Your task to perform on an android device: Open internet settings Image 0: 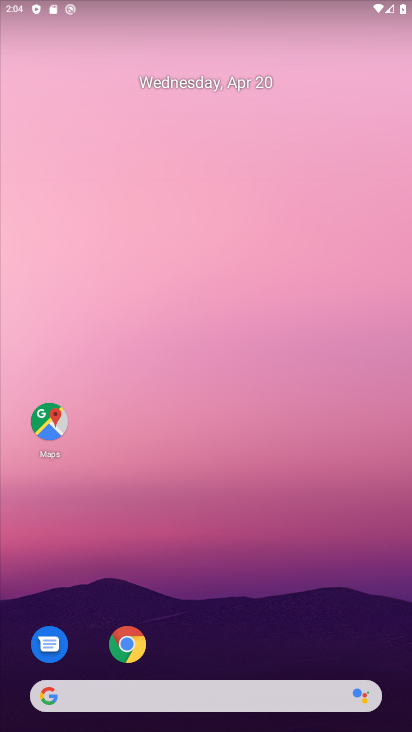
Step 0: drag from (247, 695) to (235, 134)
Your task to perform on an android device: Open internet settings Image 1: 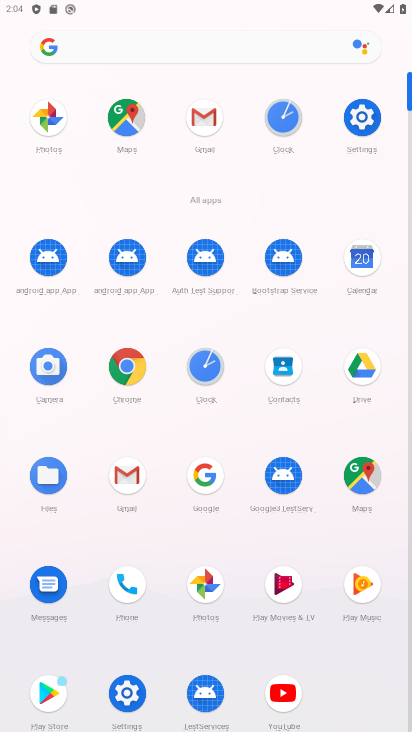
Step 1: click (118, 689)
Your task to perform on an android device: Open internet settings Image 2: 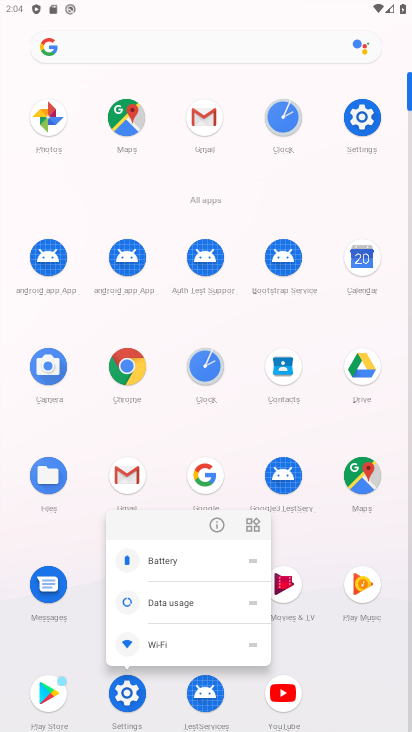
Step 2: click (127, 687)
Your task to perform on an android device: Open internet settings Image 3: 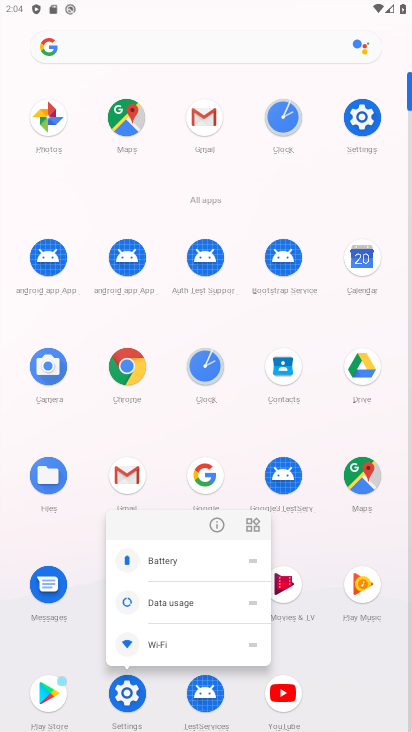
Step 3: click (129, 687)
Your task to perform on an android device: Open internet settings Image 4: 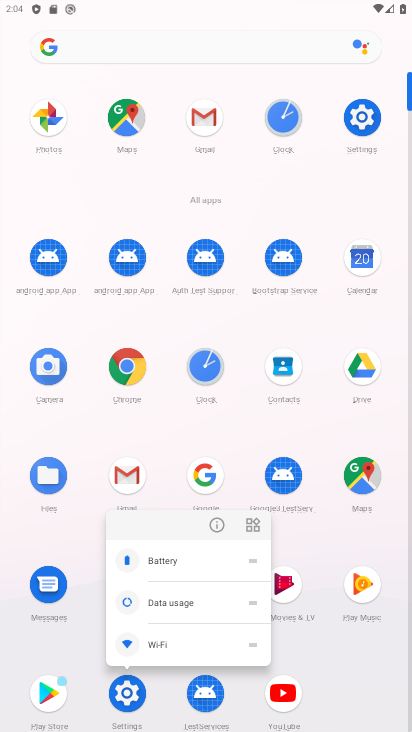
Step 4: click (131, 687)
Your task to perform on an android device: Open internet settings Image 5: 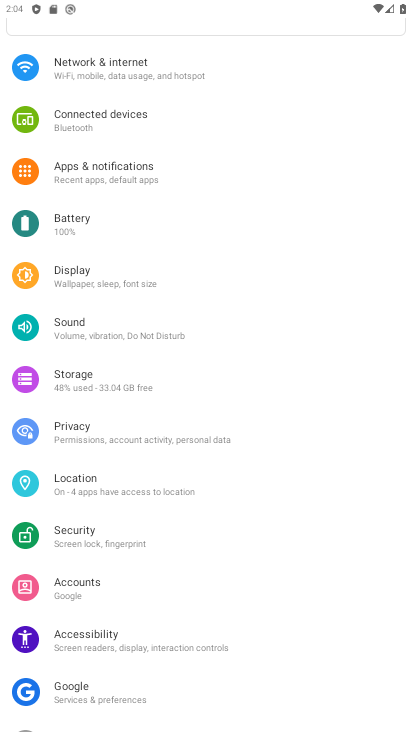
Step 5: click (176, 75)
Your task to perform on an android device: Open internet settings Image 6: 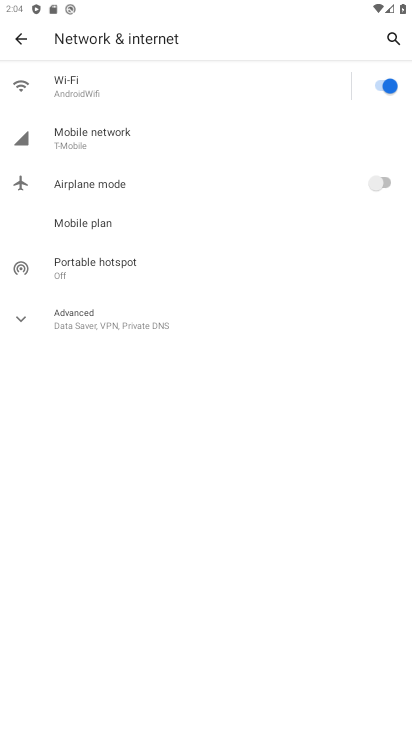
Step 6: click (115, 139)
Your task to perform on an android device: Open internet settings Image 7: 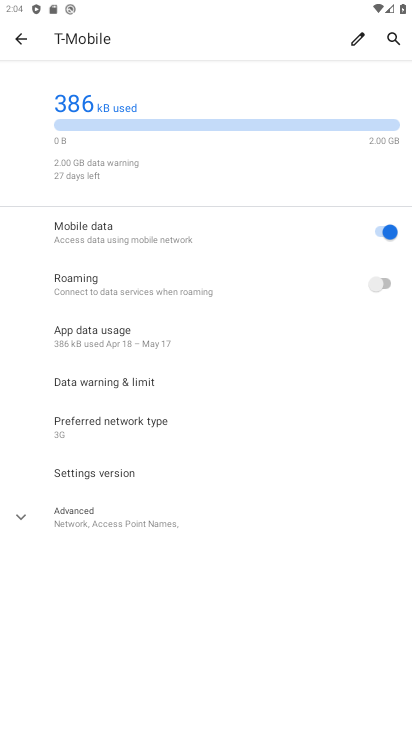
Step 7: task complete